Your task to perform on an android device: Go to Google Image 0: 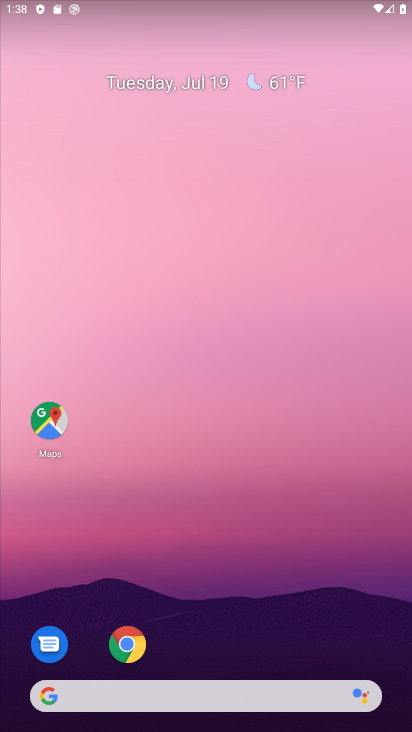
Step 0: click (228, 708)
Your task to perform on an android device: Go to Google Image 1: 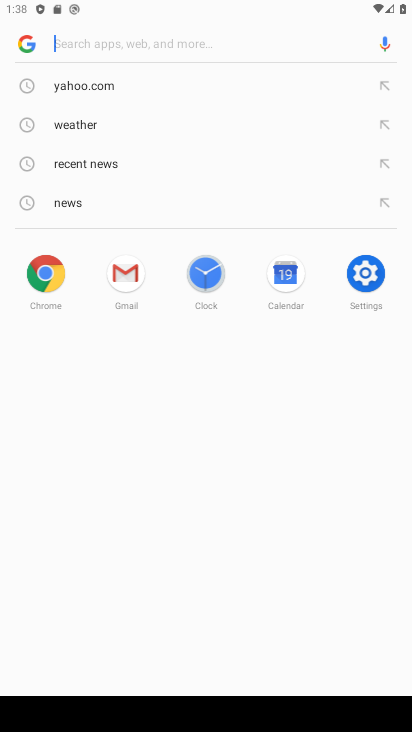
Step 1: task complete